Your task to perform on an android device: Clear the shopping cart on walmart. Image 0: 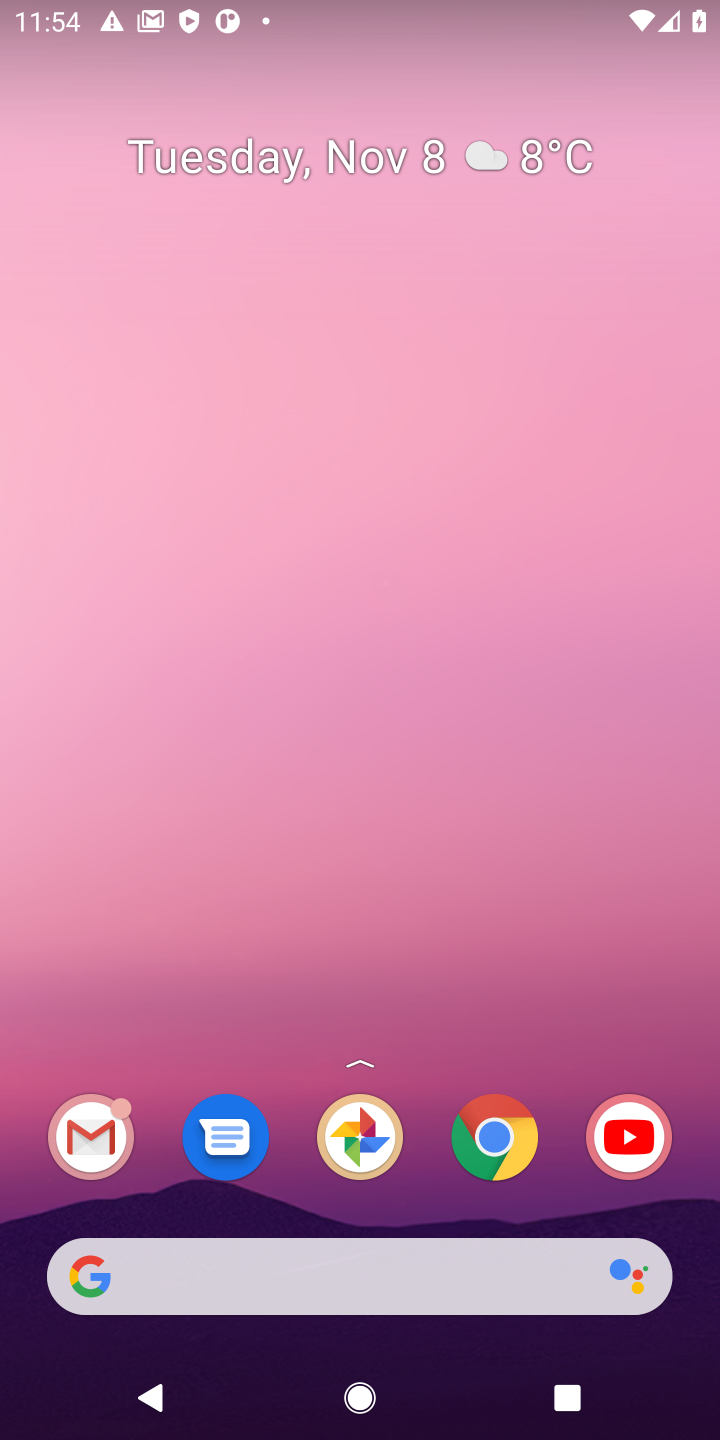
Step 0: click (498, 1170)
Your task to perform on an android device: Clear the shopping cart on walmart. Image 1: 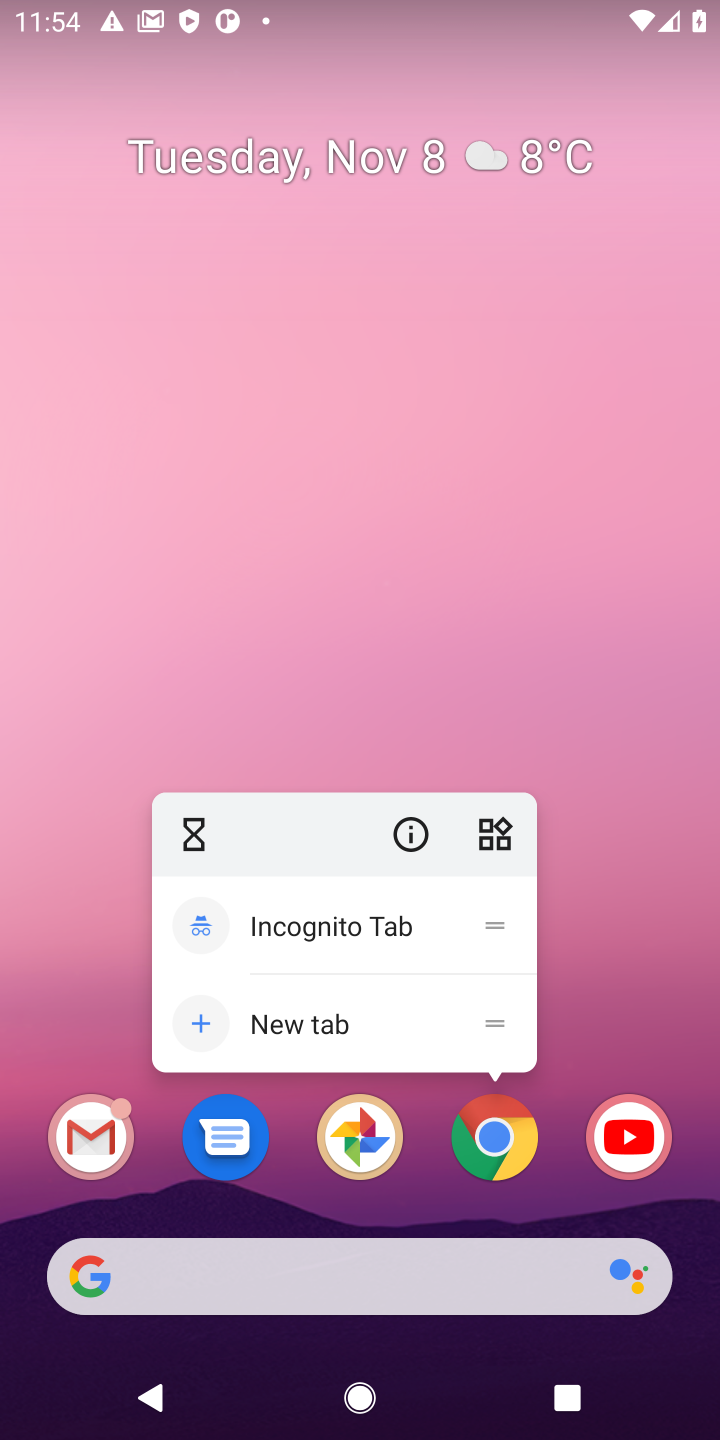
Step 1: click (501, 1135)
Your task to perform on an android device: Clear the shopping cart on walmart. Image 2: 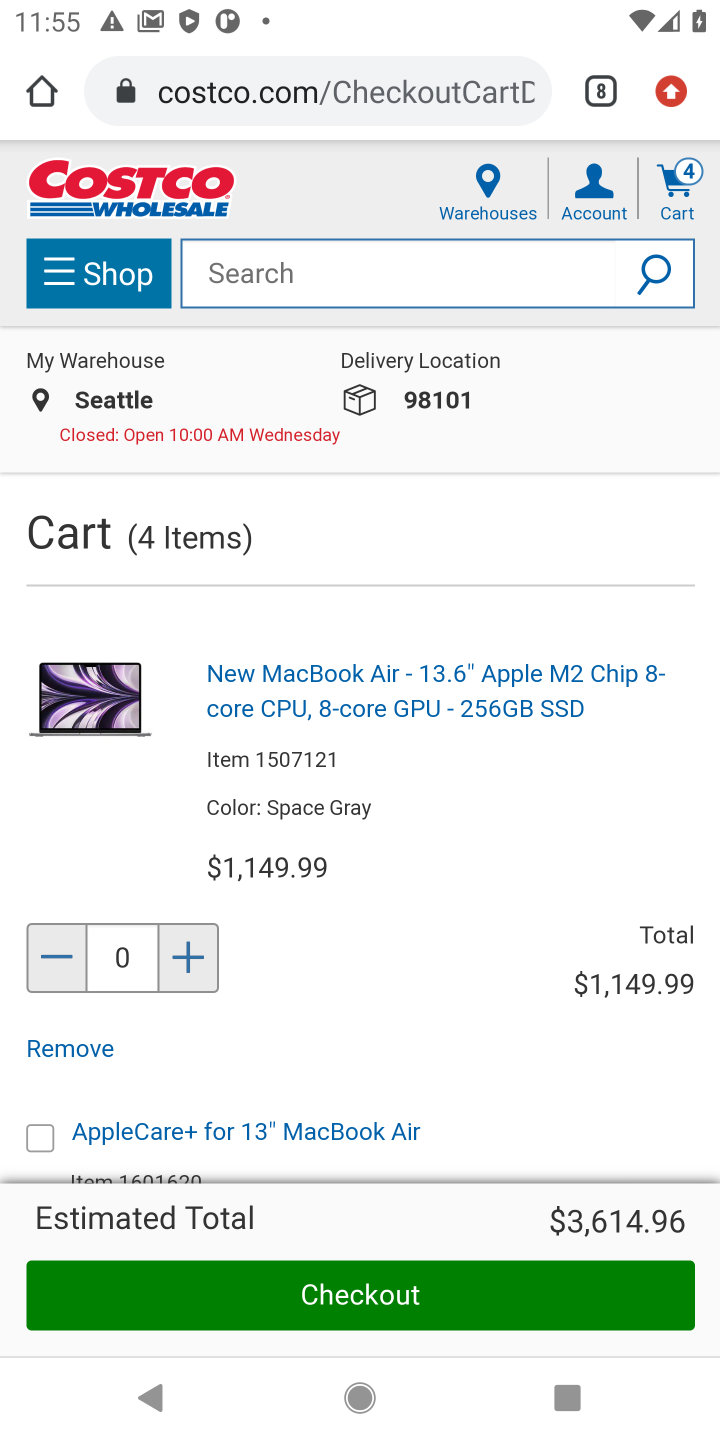
Step 2: click (596, 86)
Your task to perform on an android device: Clear the shopping cart on walmart. Image 3: 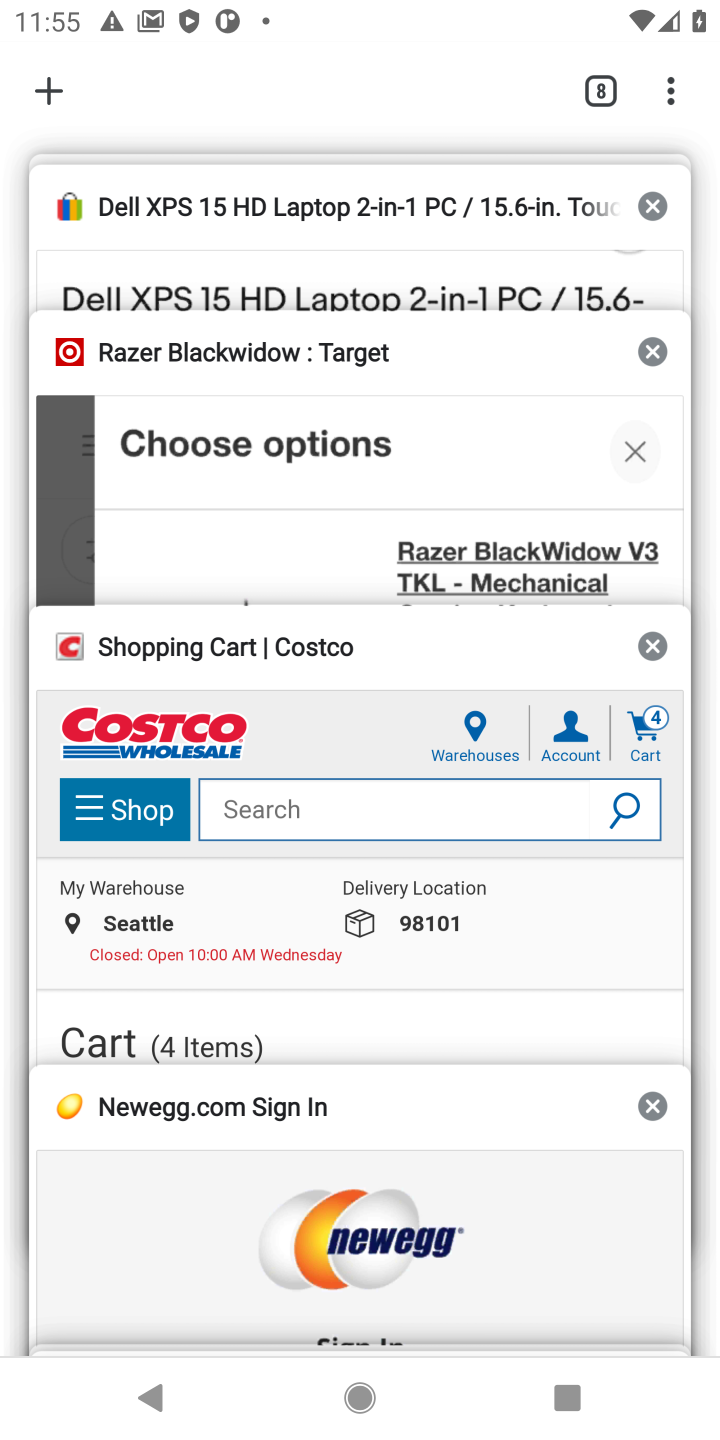
Step 3: drag from (432, 190) to (317, 655)
Your task to perform on an android device: Clear the shopping cart on walmart. Image 4: 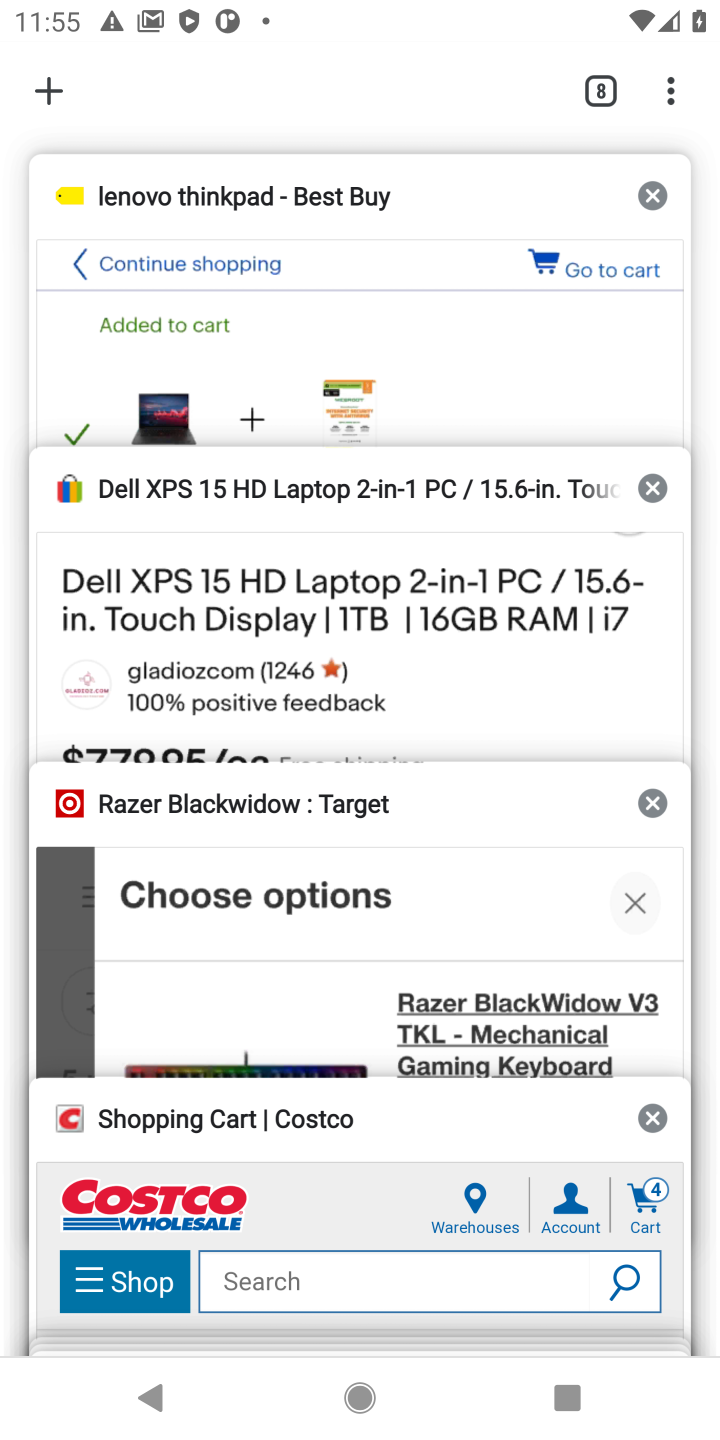
Step 4: click (46, 83)
Your task to perform on an android device: Clear the shopping cart on walmart. Image 5: 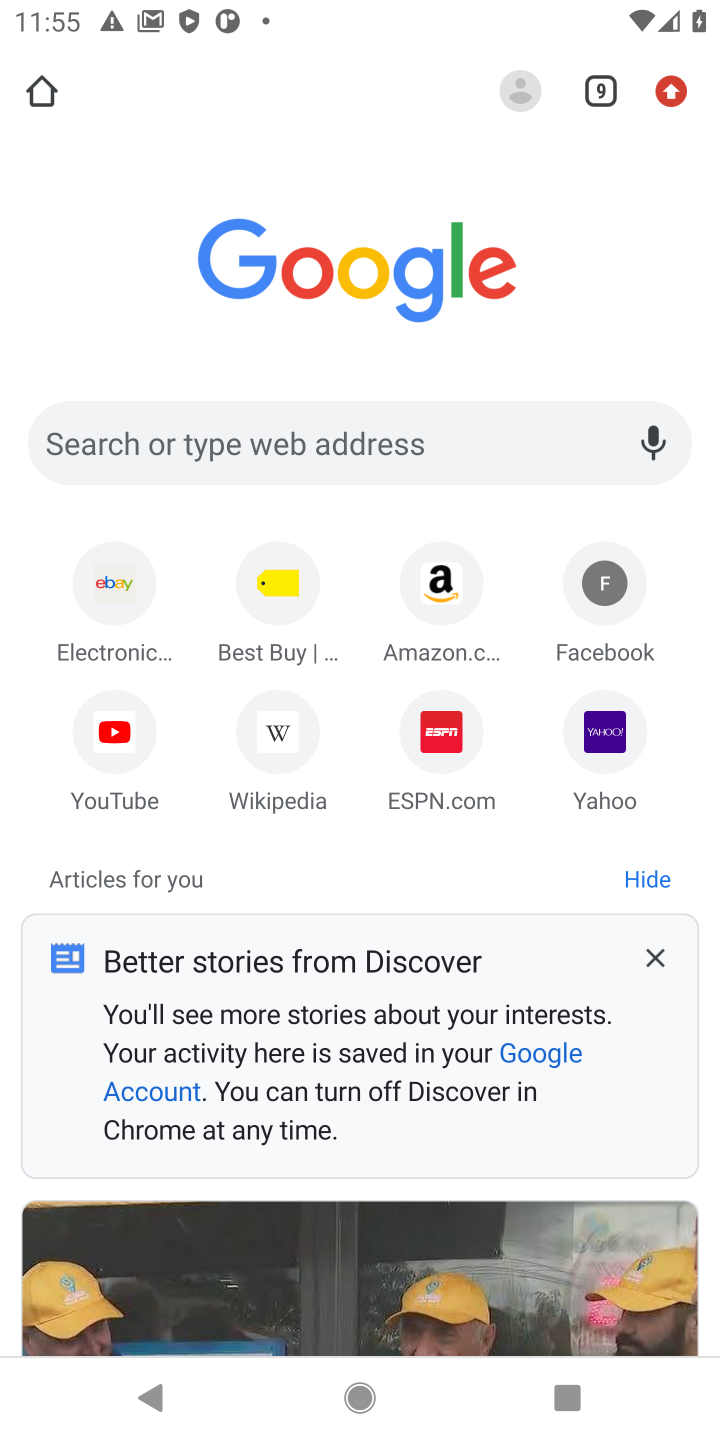
Step 5: click (266, 456)
Your task to perform on an android device: Clear the shopping cart on walmart. Image 6: 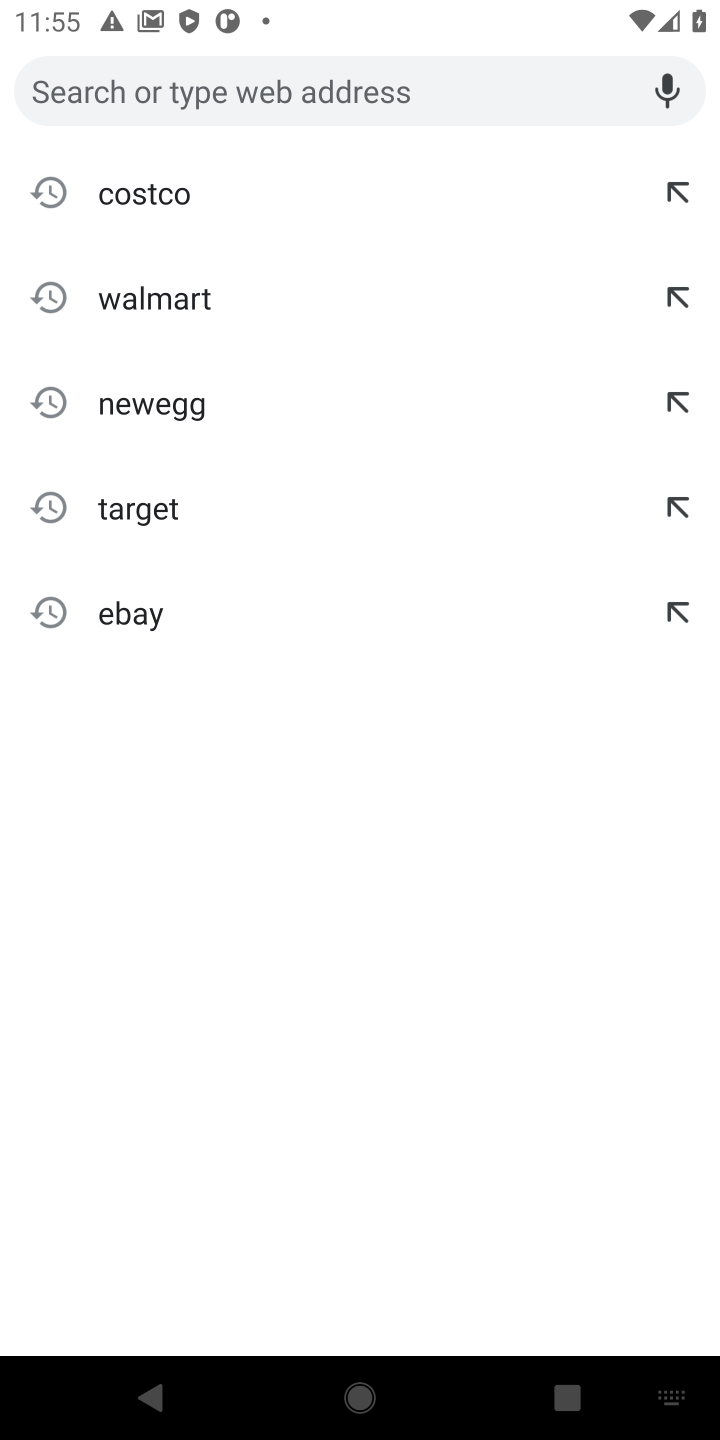
Step 6: click (177, 297)
Your task to perform on an android device: Clear the shopping cart on walmart. Image 7: 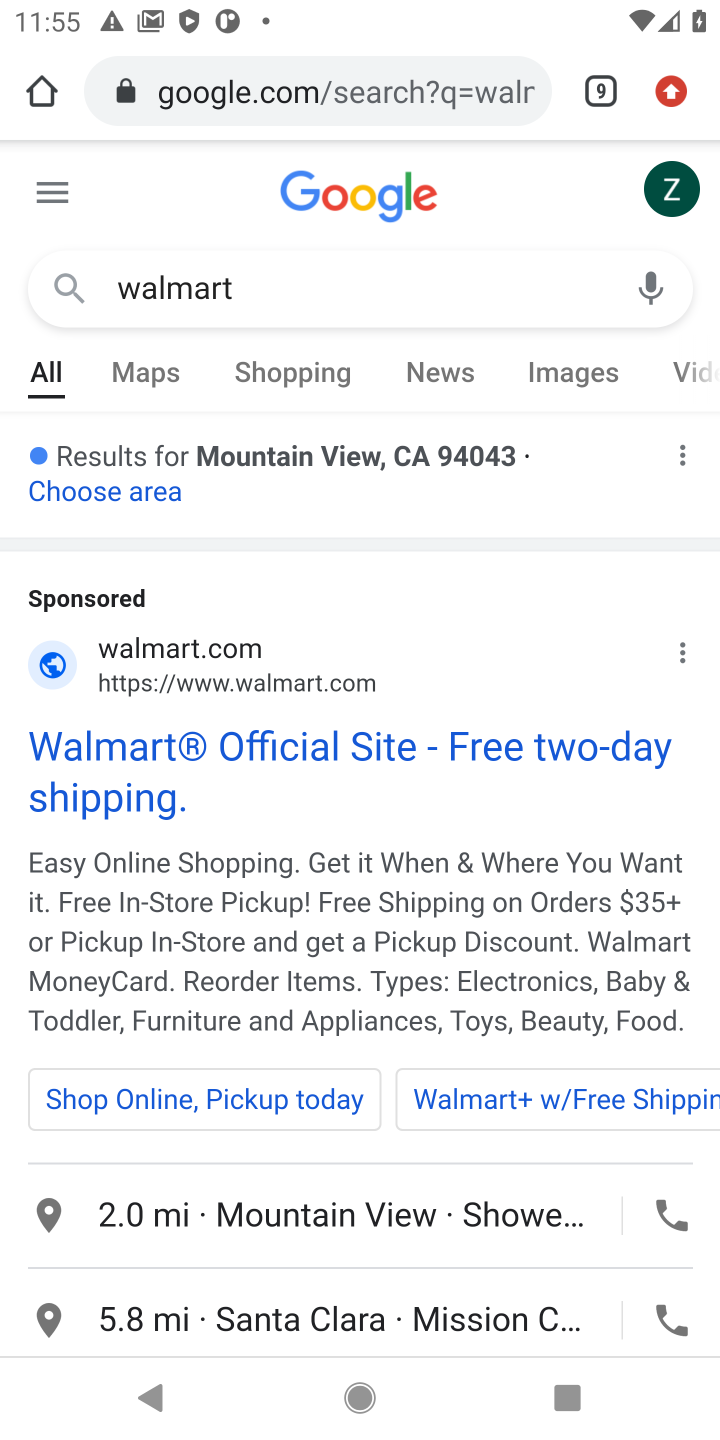
Step 7: drag from (284, 1128) to (464, 370)
Your task to perform on an android device: Clear the shopping cart on walmart. Image 8: 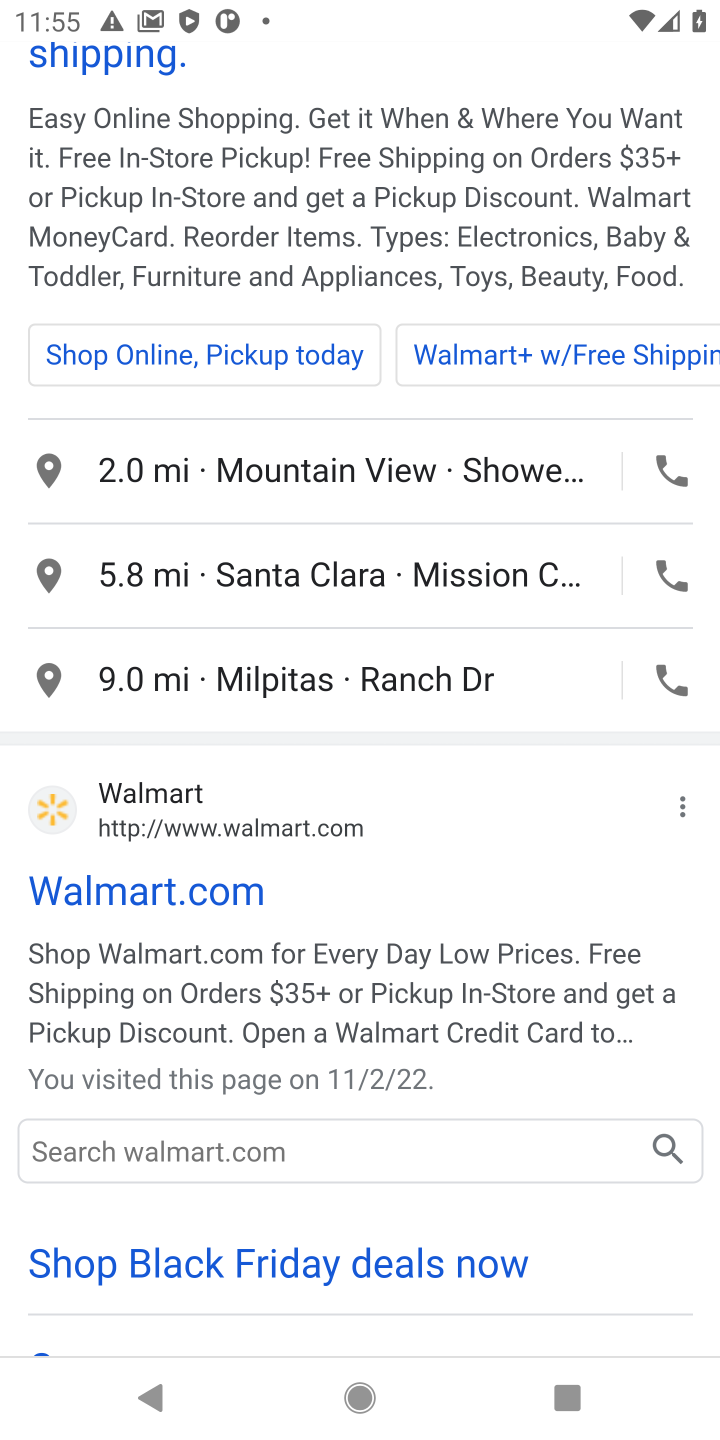
Step 8: click (196, 892)
Your task to perform on an android device: Clear the shopping cart on walmart. Image 9: 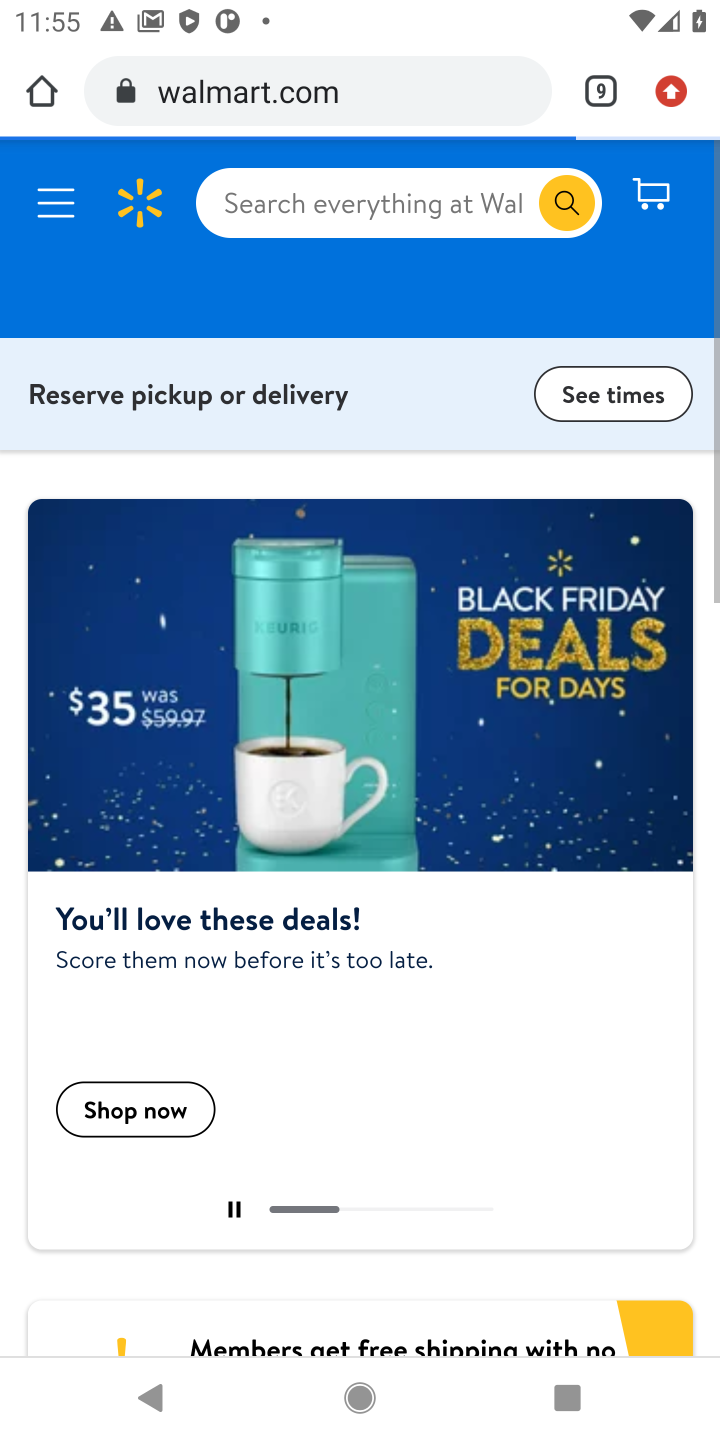
Step 9: click (662, 198)
Your task to perform on an android device: Clear the shopping cart on walmart. Image 10: 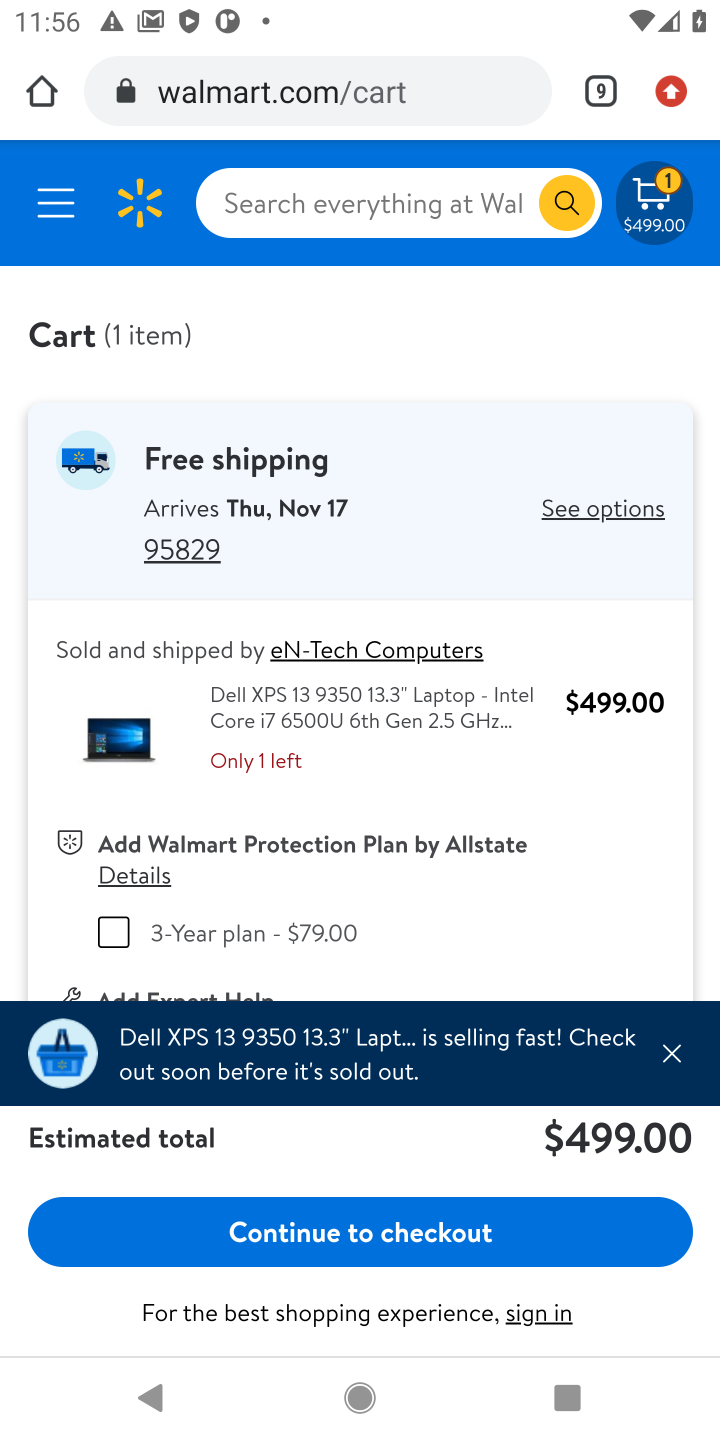
Step 10: task complete